Your task to perform on an android device: turn off notifications in google photos Image 0: 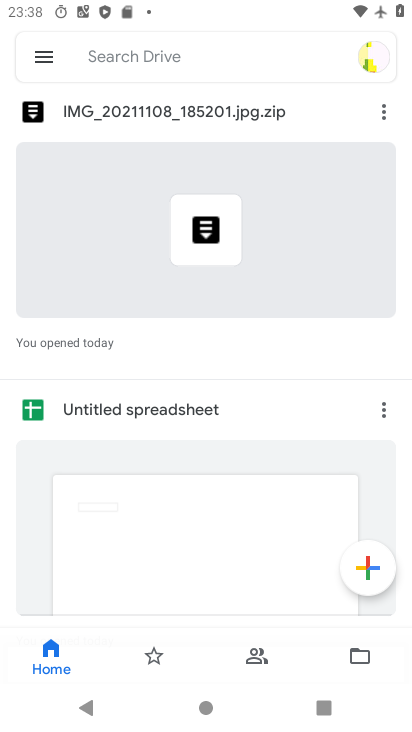
Step 0: press home button
Your task to perform on an android device: turn off notifications in google photos Image 1: 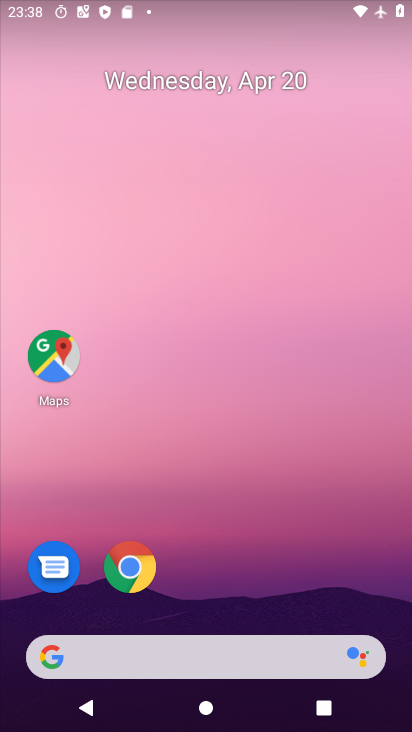
Step 1: drag from (288, 619) to (326, 208)
Your task to perform on an android device: turn off notifications in google photos Image 2: 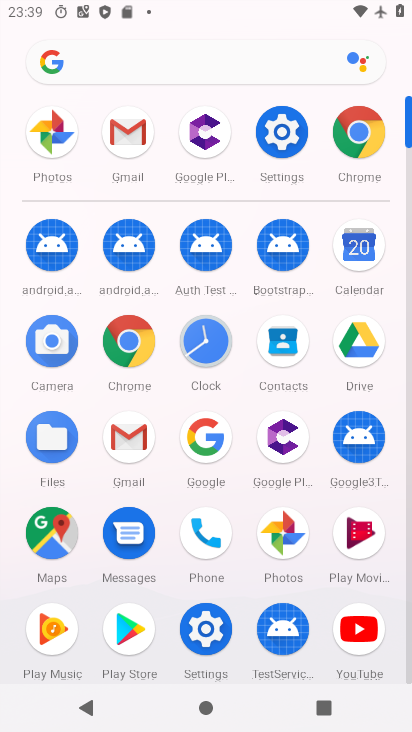
Step 2: click (282, 522)
Your task to perform on an android device: turn off notifications in google photos Image 3: 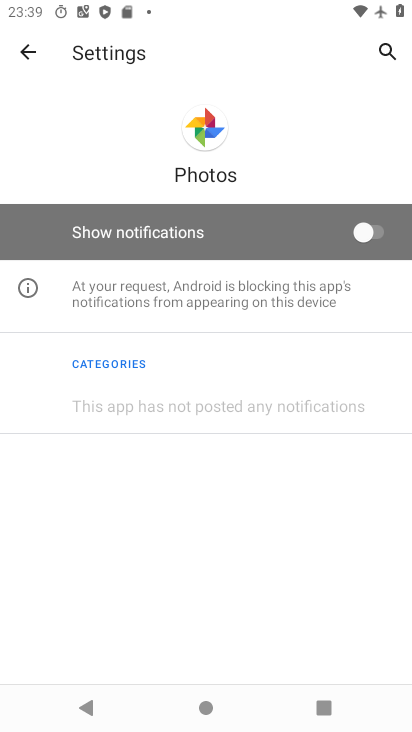
Step 3: task complete